Your task to perform on an android device: open device folders in google photos Image 0: 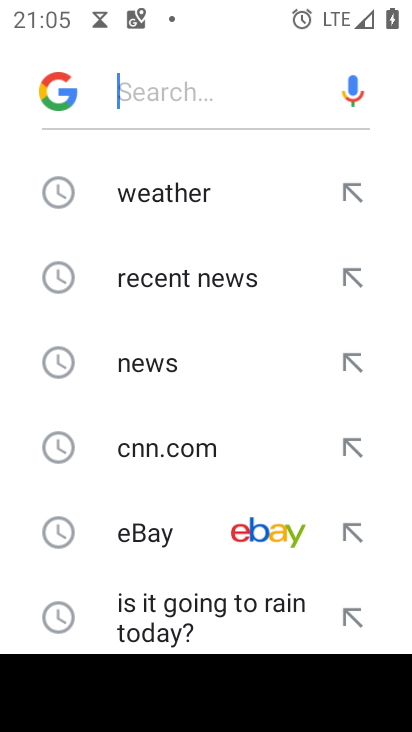
Step 0: press home button
Your task to perform on an android device: open device folders in google photos Image 1: 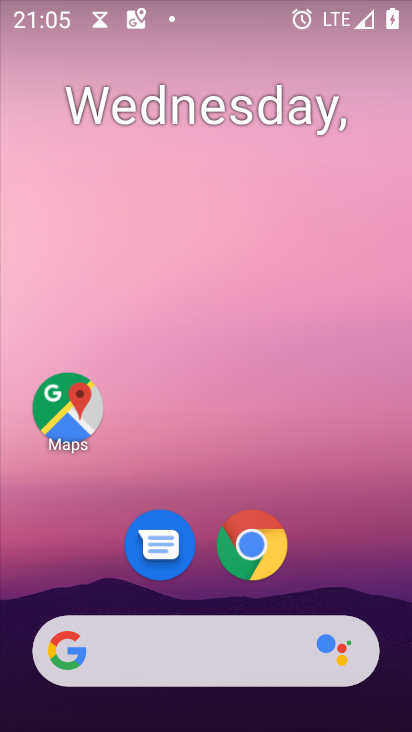
Step 1: drag from (158, 661) to (344, 142)
Your task to perform on an android device: open device folders in google photos Image 2: 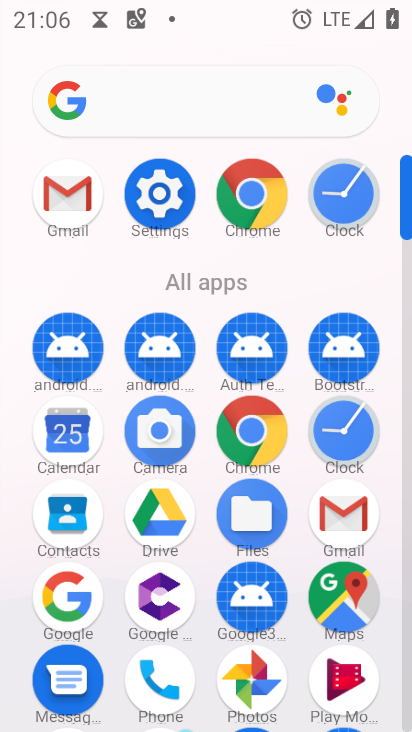
Step 2: click (243, 670)
Your task to perform on an android device: open device folders in google photos Image 3: 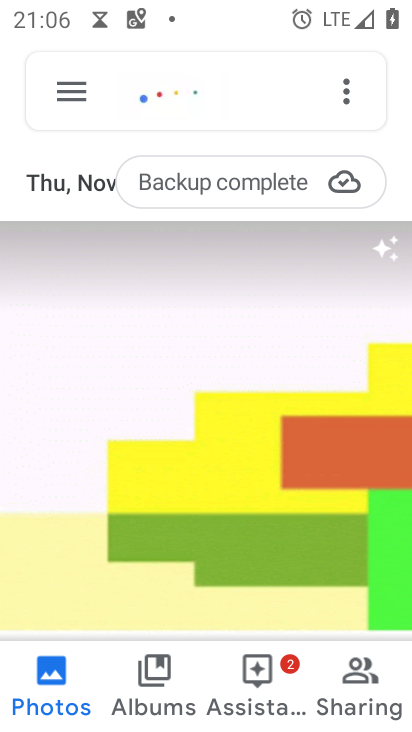
Step 3: click (72, 88)
Your task to perform on an android device: open device folders in google photos Image 4: 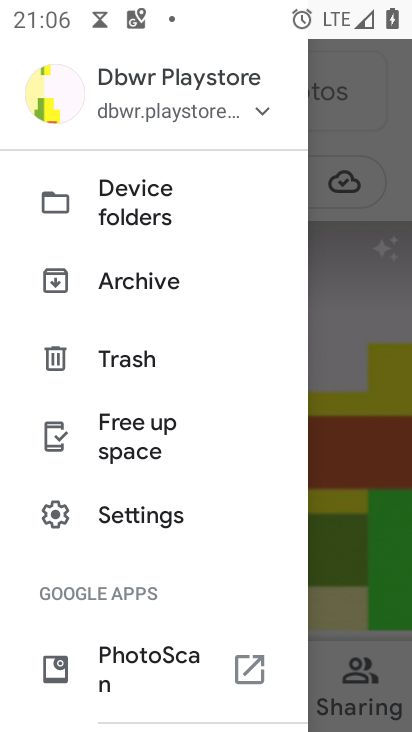
Step 4: click (126, 210)
Your task to perform on an android device: open device folders in google photos Image 5: 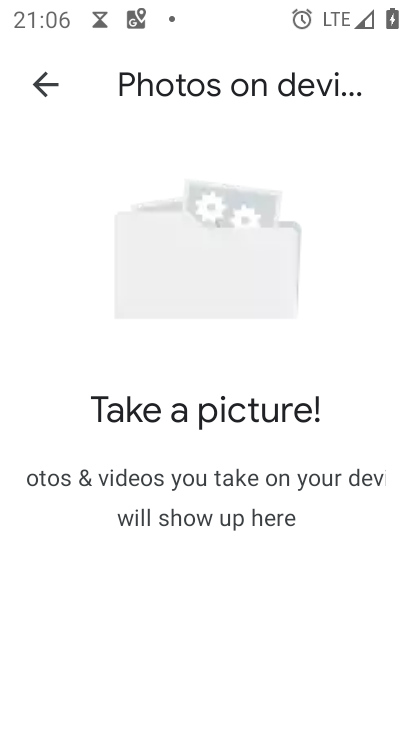
Step 5: task complete